Your task to perform on an android device: check google app version Image 0: 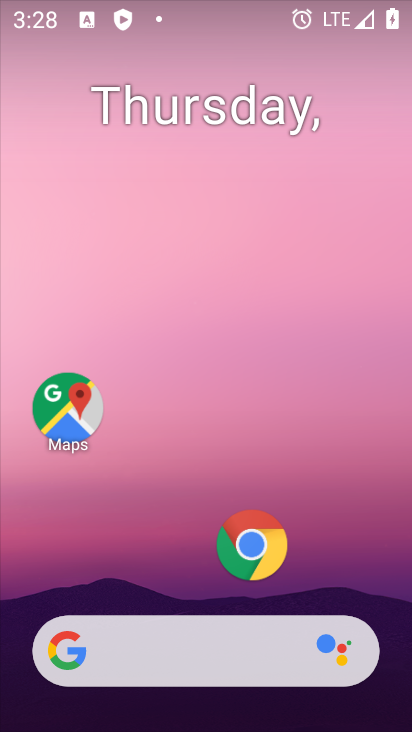
Step 0: drag from (318, 585) to (291, 37)
Your task to perform on an android device: check google app version Image 1: 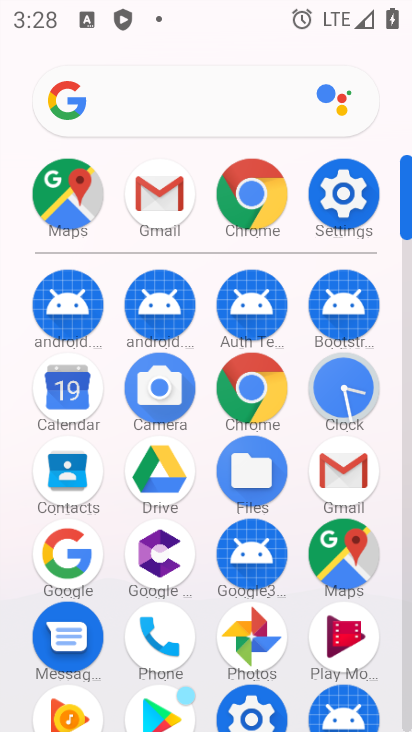
Step 1: click (240, 367)
Your task to perform on an android device: check google app version Image 2: 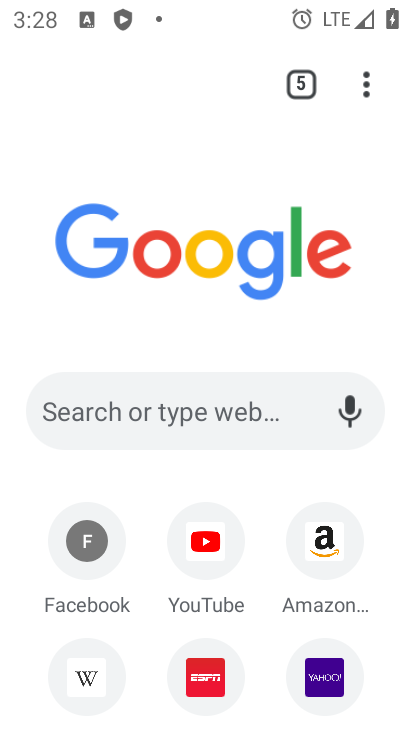
Step 2: click (359, 79)
Your task to perform on an android device: check google app version Image 3: 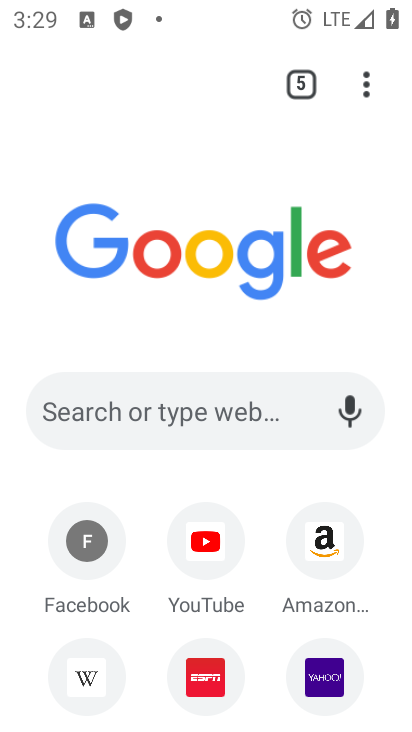
Step 3: drag from (376, 81) to (178, 685)
Your task to perform on an android device: check google app version Image 4: 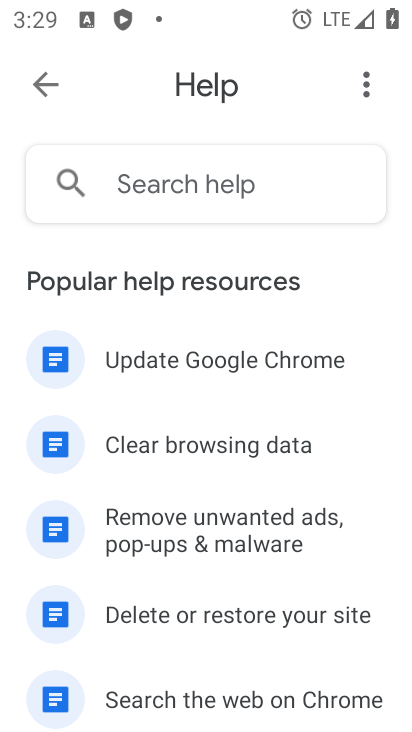
Step 4: click (368, 79)
Your task to perform on an android device: check google app version Image 5: 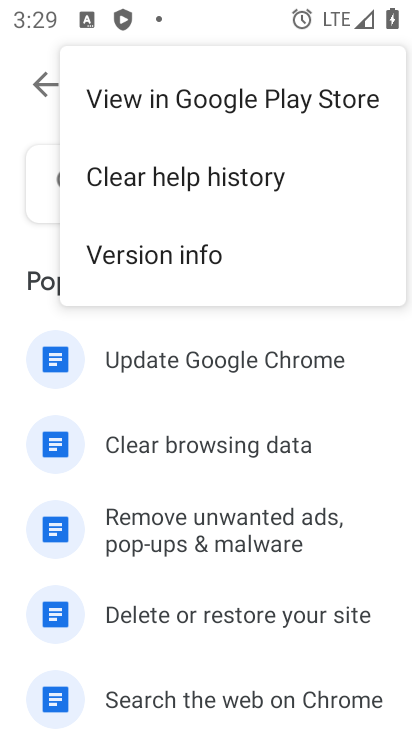
Step 5: click (238, 270)
Your task to perform on an android device: check google app version Image 6: 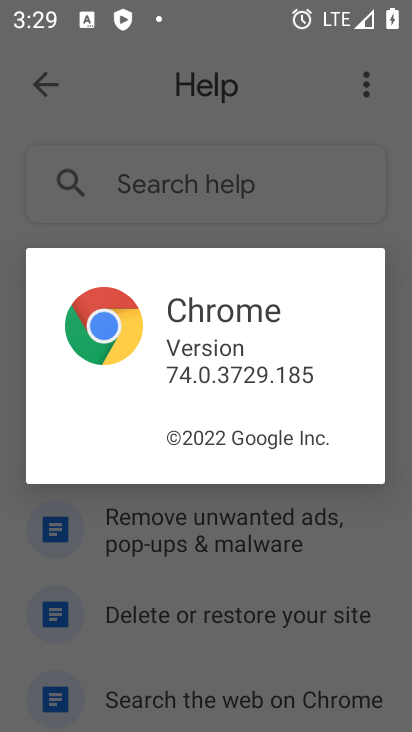
Step 6: task complete